Your task to perform on an android device: turn off location history Image 0: 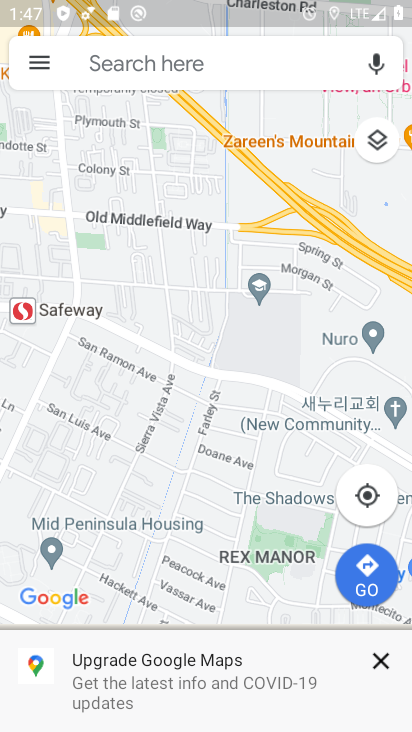
Step 0: press back button
Your task to perform on an android device: turn off location history Image 1: 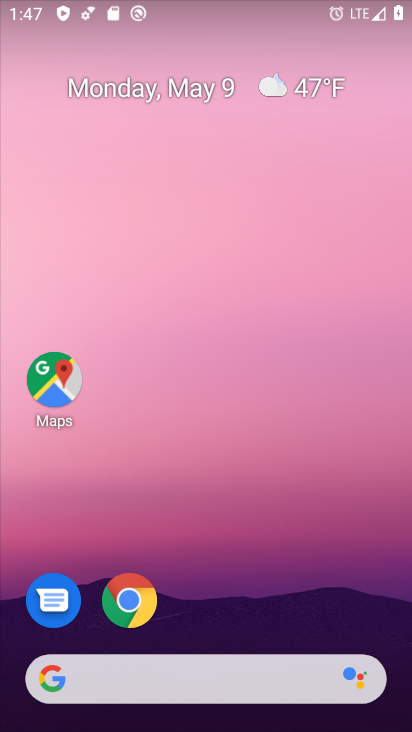
Step 1: drag from (179, 672) to (192, 103)
Your task to perform on an android device: turn off location history Image 2: 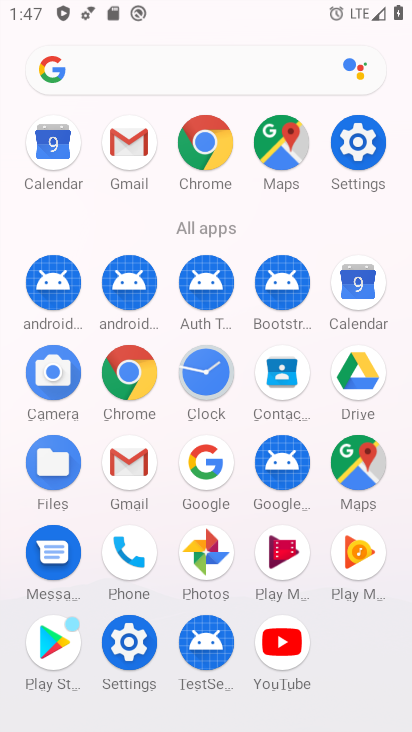
Step 2: click (351, 147)
Your task to perform on an android device: turn off location history Image 3: 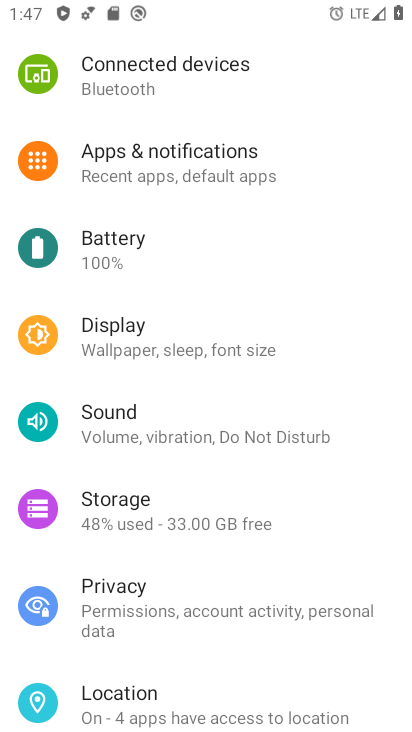
Step 3: click (133, 698)
Your task to perform on an android device: turn off location history Image 4: 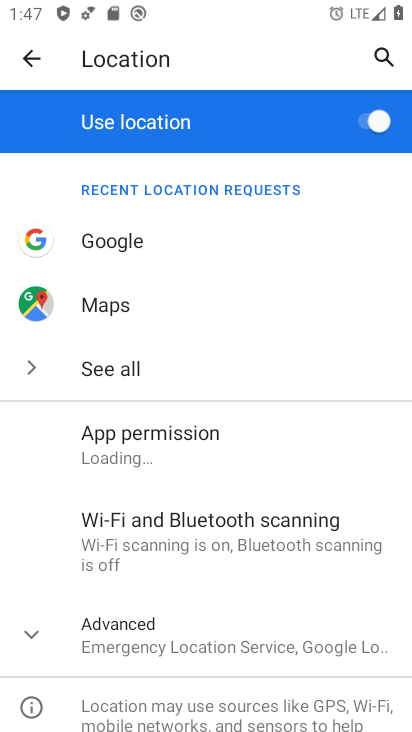
Step 4: drag from (145, 652) to (188, 106)
Your task to perform on an android device: turn off location history Image 5: 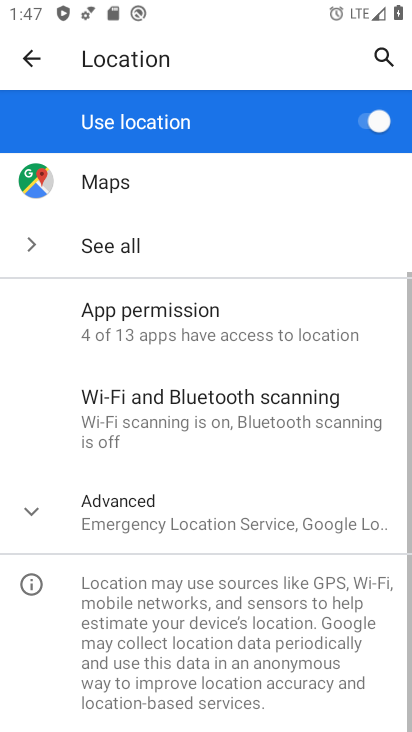
Step 5: click (266, 521)
Your task to perform on an android device: turn off location history Image 6: 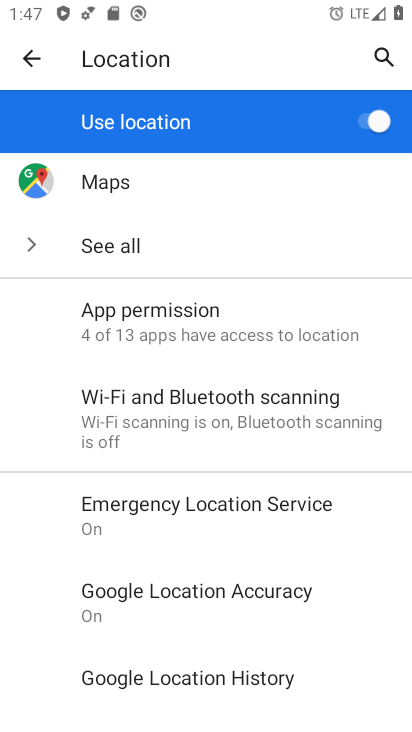
Step 6: click (213, 674)
Your task to perform on an android device: turn off location history Image 7: 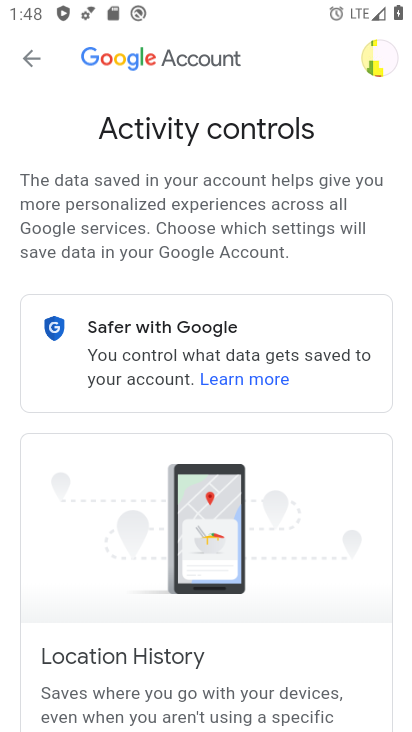
Step 7: drag from (213, 646) to (219, 191)
Your task to perform on an android device: turn off location history Image 8: 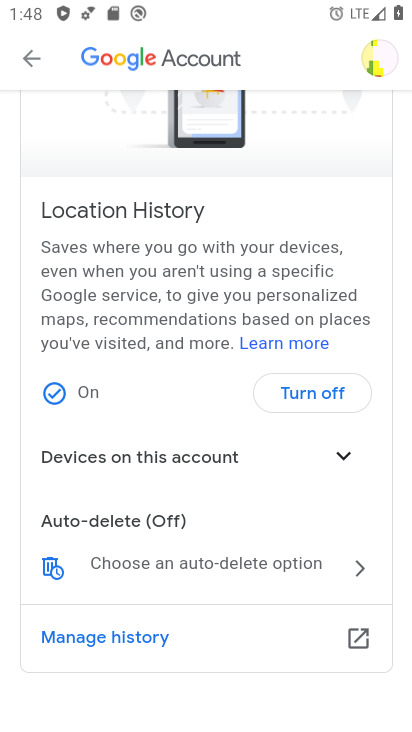
Step 8: click (318, 394)
Your task to perform on an android device: turn off location history Image 9: 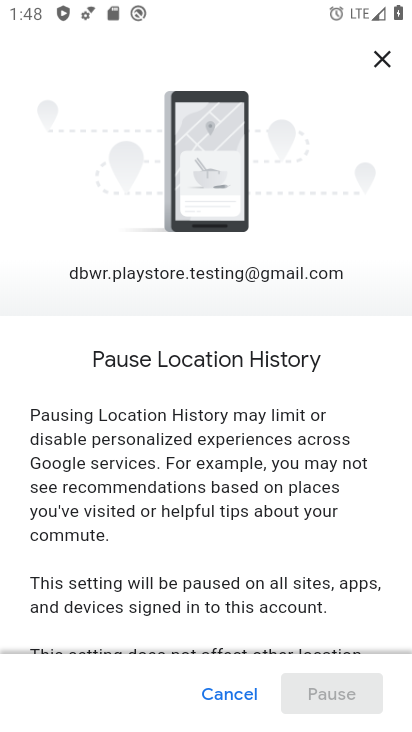
Step 9: drag from (262, 569) to (123, 9)
Your task to perform on an android device: turn off location history Image 10: 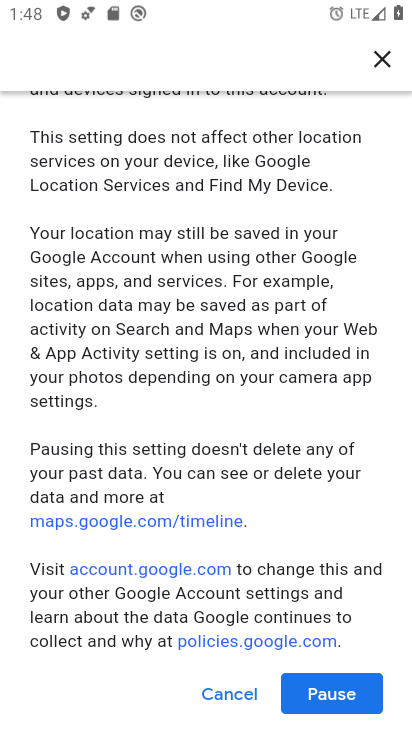
Step 10: click (328, 706)
Your task to perform on an android device: turn off location history Image 11: 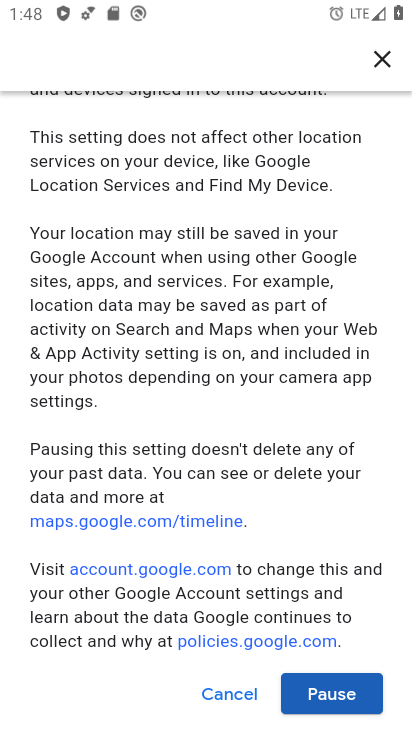
Step 11: click (328, 706)
Your task to perform on an android device: turn off location history Image 12: 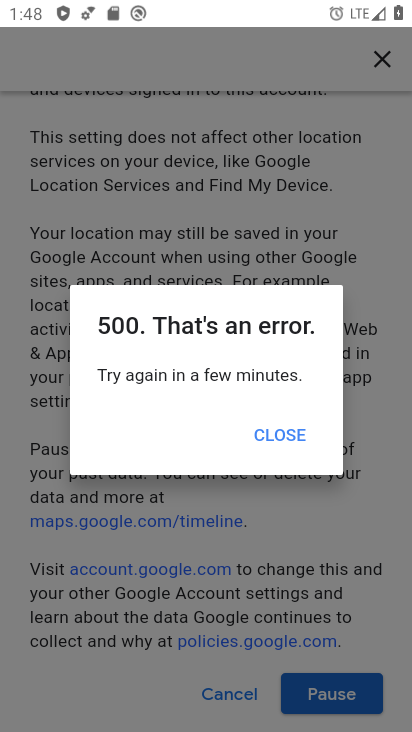
Step 12: click (277, 440)
Your task to perform on an android device: turn off location history Image 13: 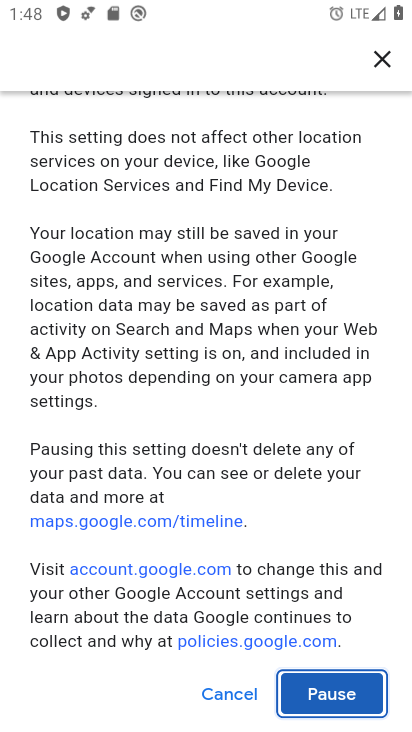
Step 13: click (326, 695)
Your task to perform on an android device: turn off location history Image 14: 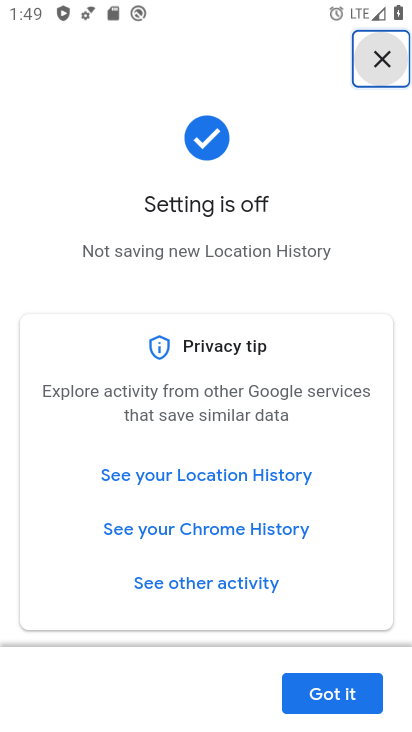
Step 14: click (336, 696)
Your task to perform on an android device: turn off location history Image 15: 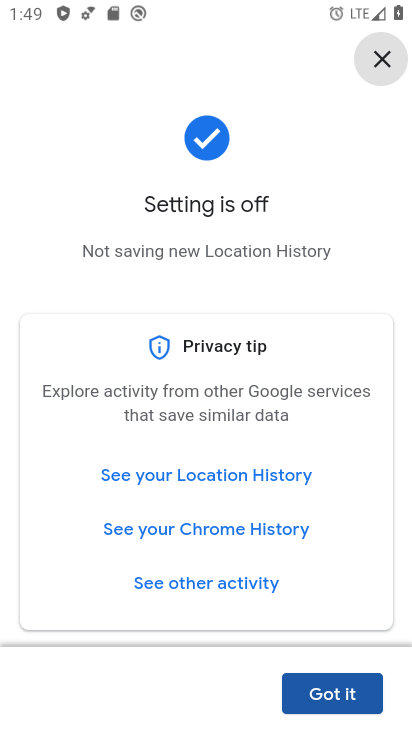
Step 15: task complete